Your task to perform on an android device: Clear all items from cart on target.com. Image 0: 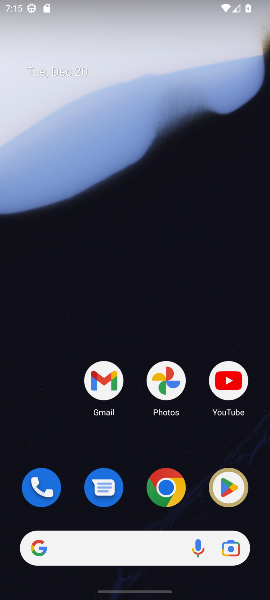
Step 0: press home button
Your task to perform on an android device: Clear all items from cart on target.com. Image 1: 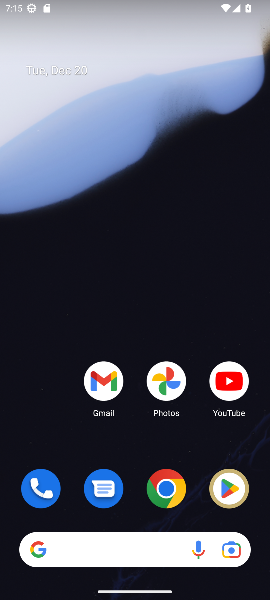
Step 1: drag from (67, 438) to (47, 80)
Your task to perform on an android device: Clear all items from cart on target.com. Image 2: 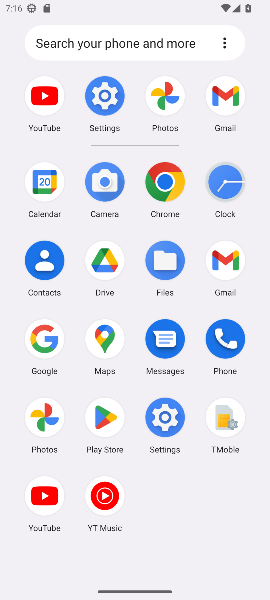
Step 2: click (42, 343)
Your task to perform on an android device: Clear all items from cart on target.com. Image 3: 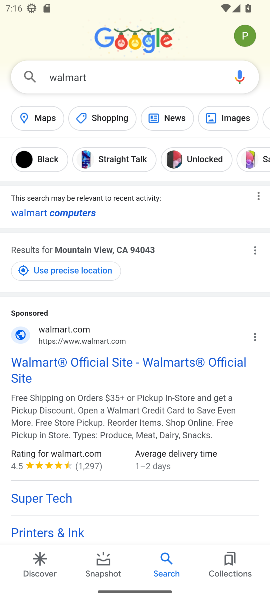
Step 3: click (117, 76)
Your task to perform on an android device: Clear all items from cart on target.com. Image 4: 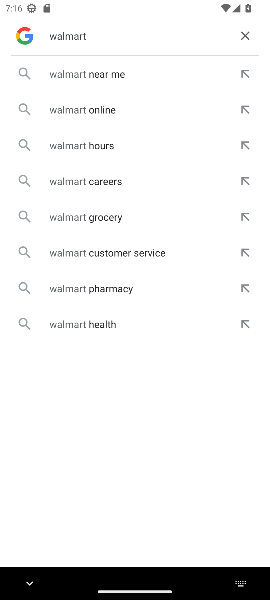
Step 4: click (241, 33)
Your task to perform on an android device: Clear all items from cart on target.com. Image 5: 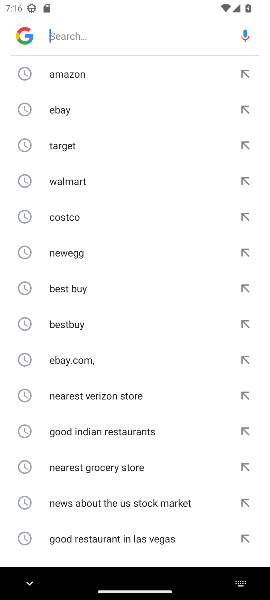
Step 5: type "target.com"
Your task to perform on an android device: Clear all items from cart on target.com. Image 6: 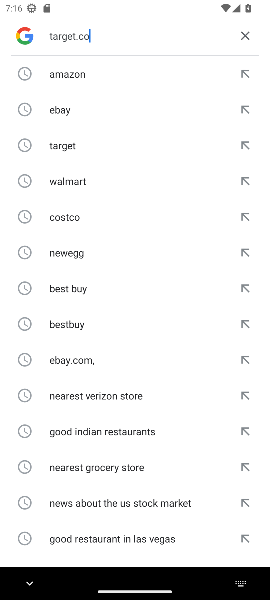
Step 6: press enter
Your task to perform on an android device: Clear all items from cart on target.com. Image 7: 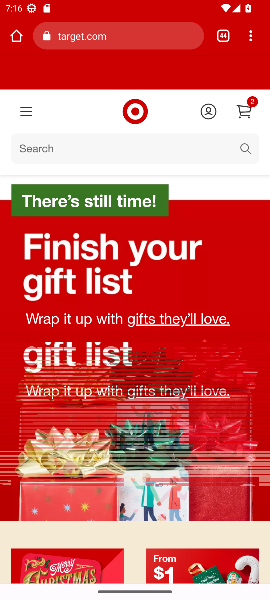
Step 7: click (243, 106)
Your task to perform on an android device: Clear all items from cart on target.com. Image 8: 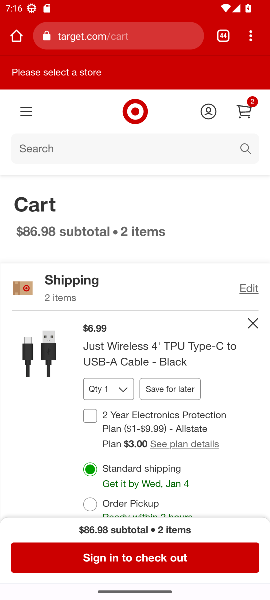
Step 8: click (250, 316)
Your task to perform on an android device: Clear all items from cart on target.com. Image 9: 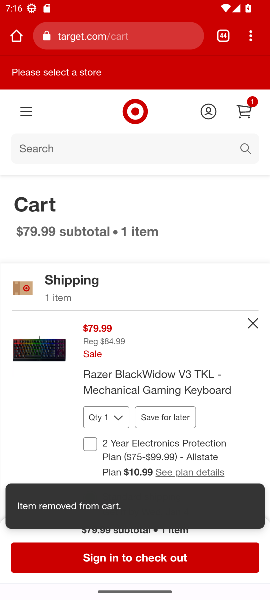
Step 9: click (250, 321)
Your task to perform on an android device: Clear all items from cart on target.com. Image 10: 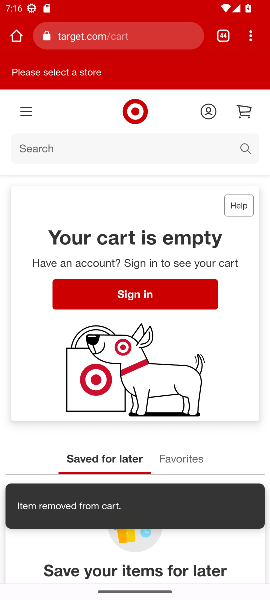
Step 10: click (35, 149)
Your task to perform on an android device: Clear all items from cart on target.com. Image 11: 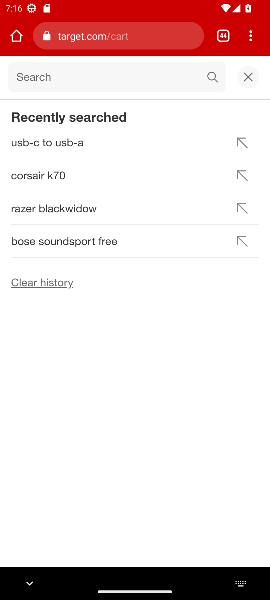
Step 11: task complete